Your task to perform on an android device: Open Youtube and go to the subscriptions tab Image 0: 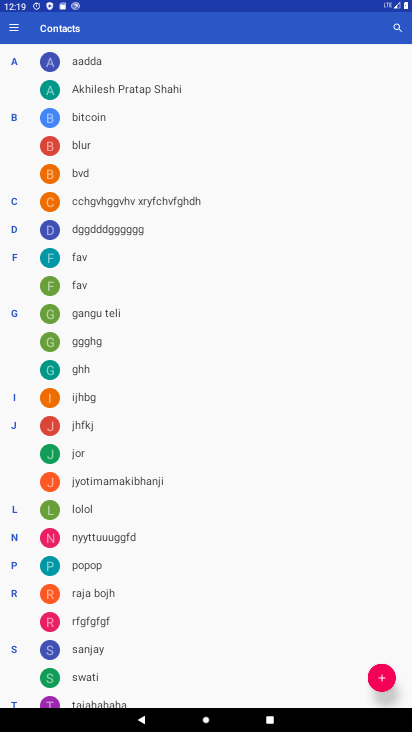
Step 0: press home button
Your task to perform on an android device: Open Youtube and go to the subscriptions tab Image 1: 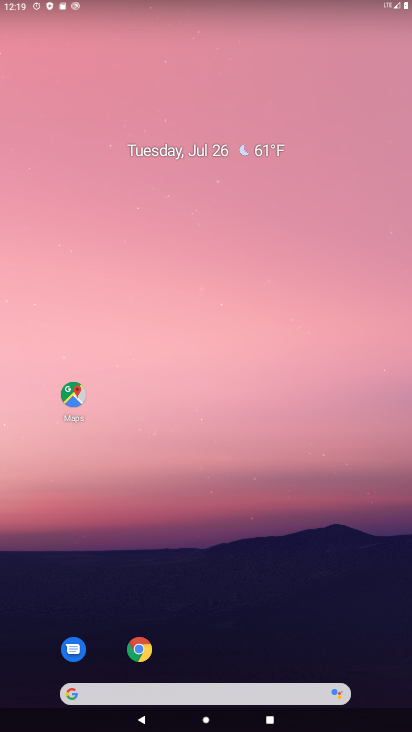
Step 1: drag from (205, 678) to (403, 436)
Your task to perform on an android device: Open Youtube and go to the subscriptions tab Image 2: 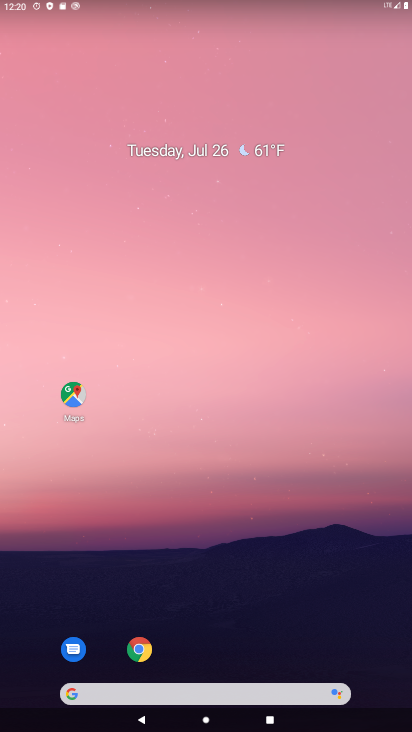
Step 2: drag from (227, 680) to (192, 16)
Your task to perform on an android device: Open Youtube and go to the subscriptions tab Image 3: 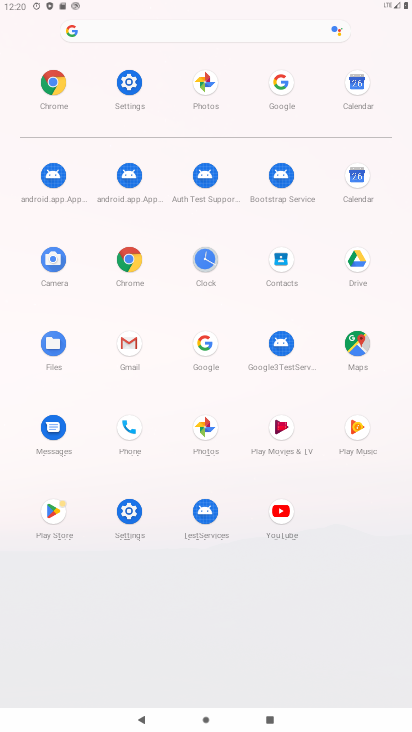
Step 3: click (290, 514)
Your task to perform on an android device: Open Youtube and go to the subscriptions tab Image 4: 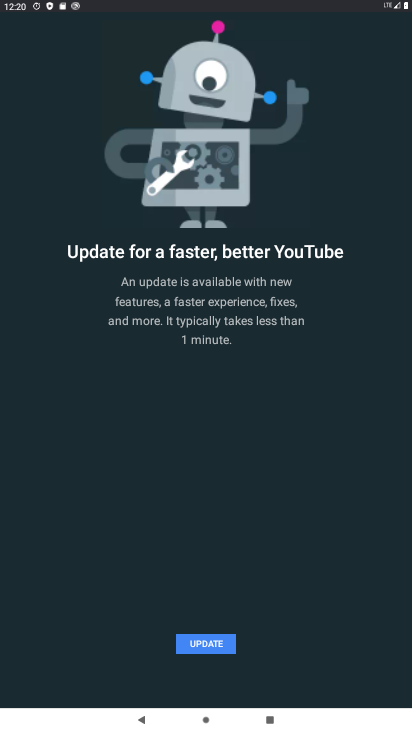
Step 4: click (232, 648)
Your task to perform on an android device: Open Youtube and go to the subscriptions tab Image 5: 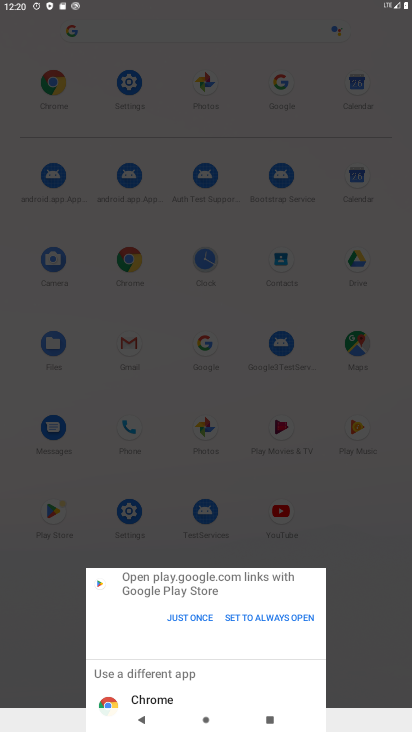
Step 5: click (209, 613)
Your task to perform on an android device: Open Youtube and go to the subscriptions tab Image 6: 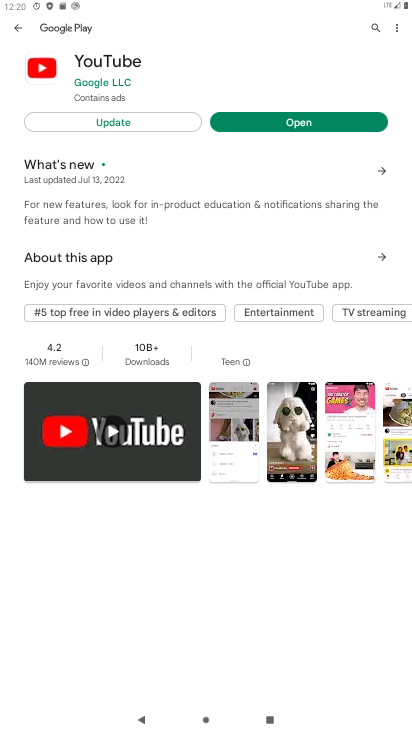
Step 6: click (159, 127)
Your task to perform on an android device: Open Youtube and go to the subscriptions tab Image 7: 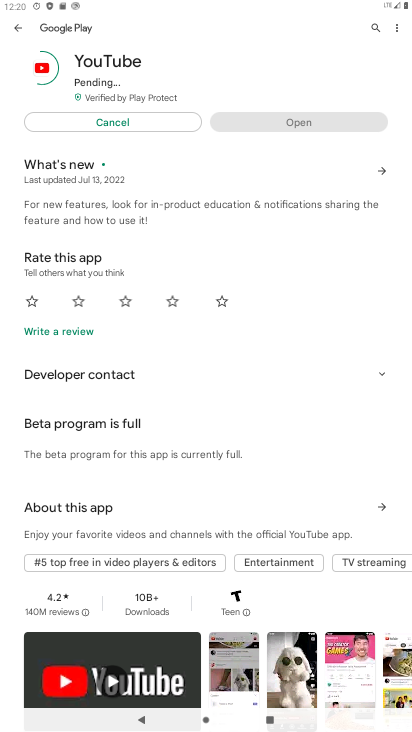
Step 7: task complete